Your task to perform on an android device: Open battery settings Image 0: 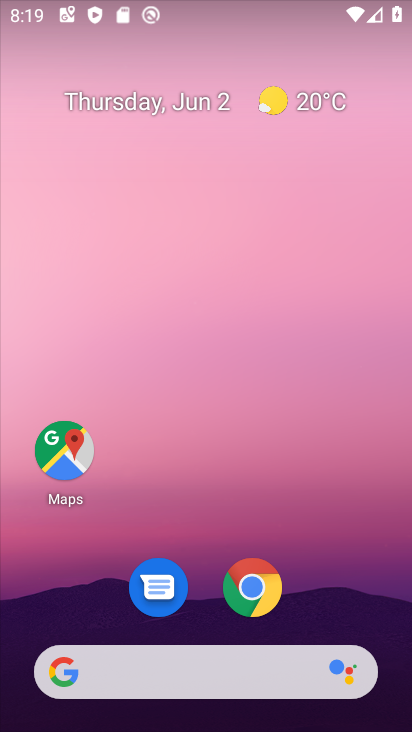
Step 0: drag from (273, 12) to (294, 539)
Your task to perform on an android device: Open battery settings Image 1: 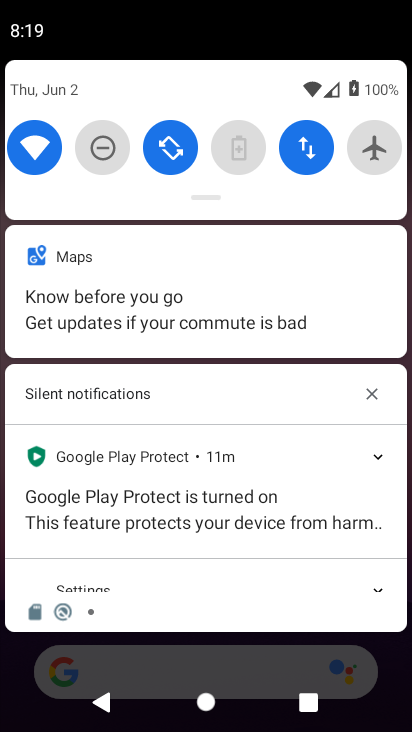
Step 1: click (231, 146)
Your task to perform on an android device: Open battery settings Image 2: 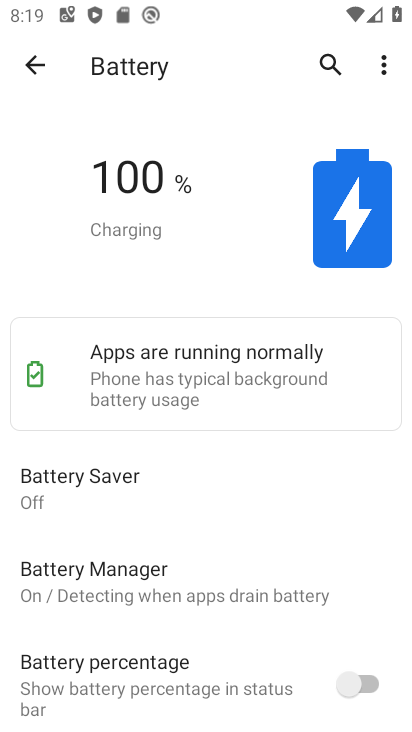
Step 2: task complete